Your task to perform on an android device: Open Google Image 0: 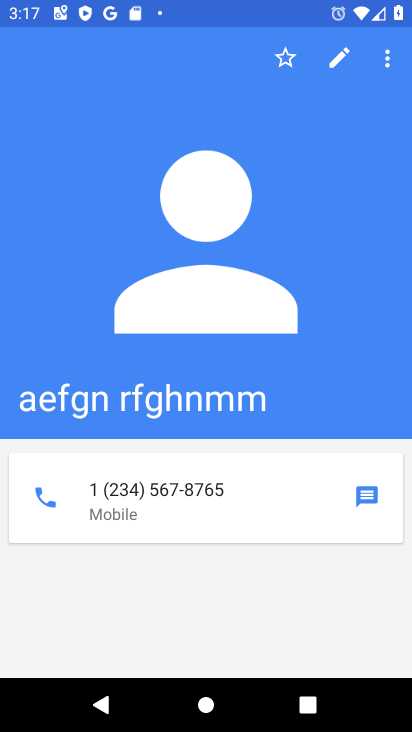
Step 0: press home button
Your task to perform on an android device: Open Google Image 1: 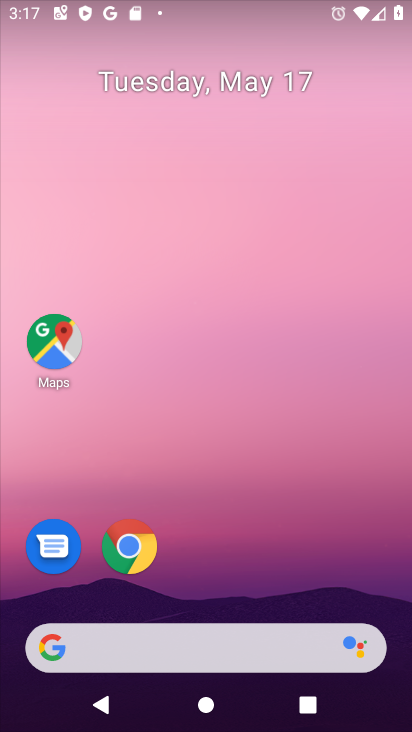
Step 1: drag from (402, 639) to (391, 353)
Your task to perform on an android device: Open Google Image 2: 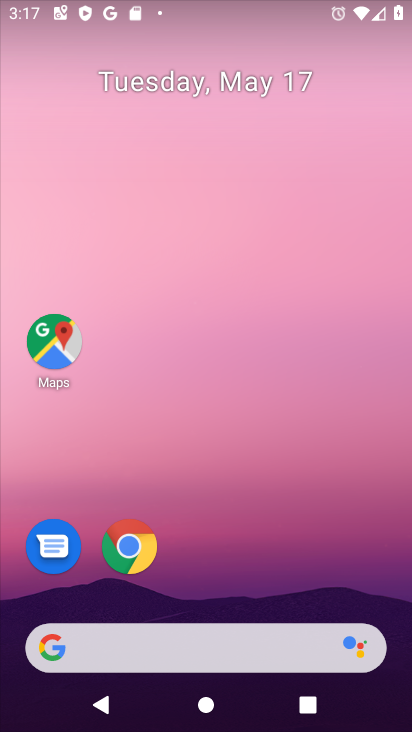
Step 2: click (365, 183)
Your task to perform on an android device: Open Google Image 3: 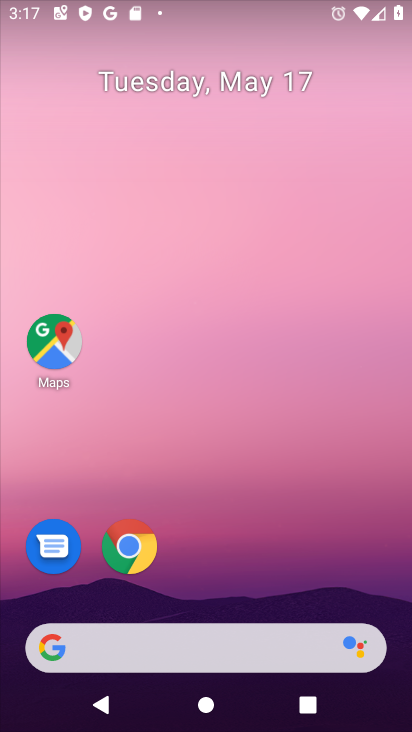
Step 3: drag from (403, 672) to (404, 406)
Your task to perform on an android device: Open Google Image 4: 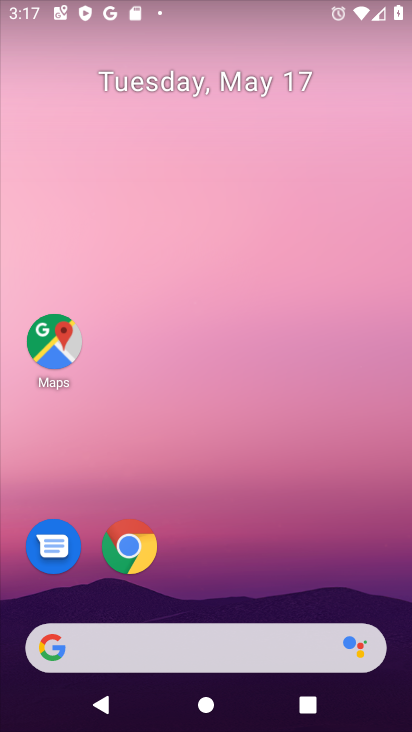
Step 4: drag from (396, 580) to (386, 385)
Your task to perform on an android device: Open Google Image 5: 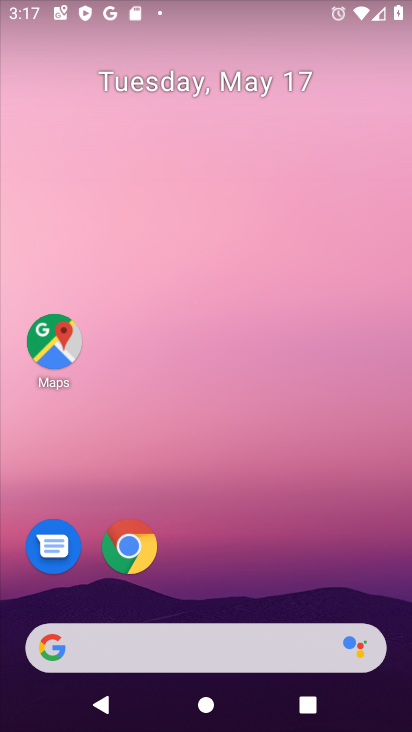
Step 5: drag from (400, 593) to (393, 278)
Your task to perform on an android device: Open Google Image 6: 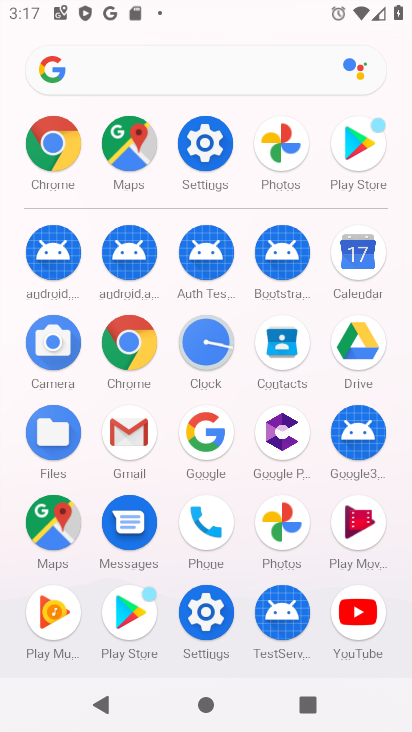
Step 6: click (195, 432)
Your task to perform on an android device: Open Google Image 7: 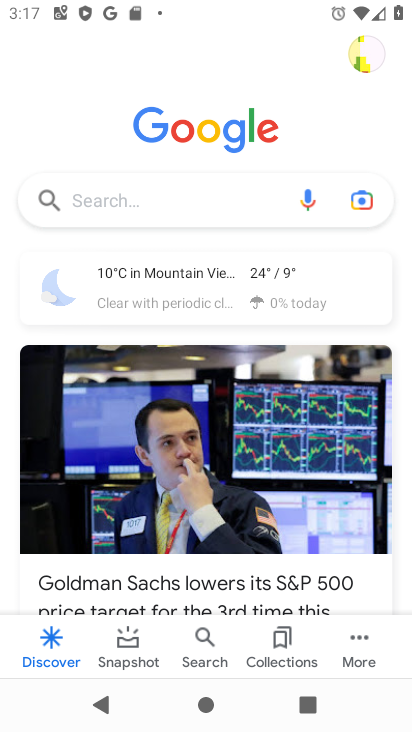
Step 7: task complete